Your task to perform on an android device: change keyboard looks Image 0: 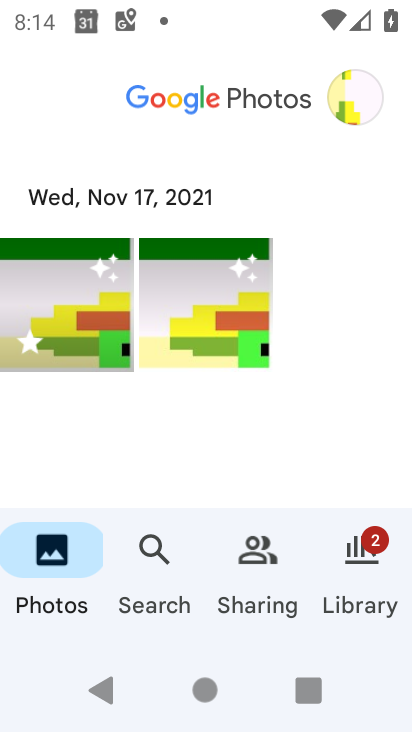
Step 0: press home button
Your task to perform on an android device: change keyboard looks Image 1: 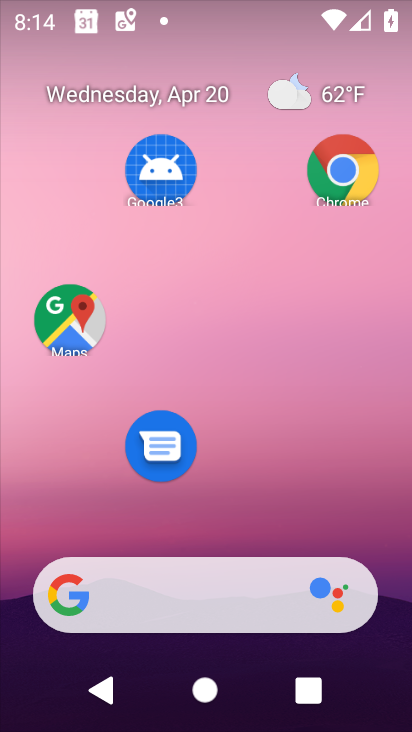
Step 1: drag from (241, 533) to (241, 22)
Your task to perform on an android device: change keyboard looks Image 2: 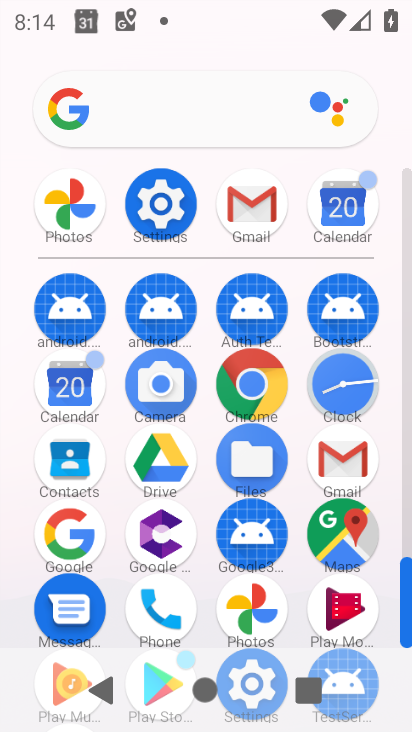
Step 2: click (160, 195)
Your task to perform on an android device: change keyboard looks Image 3: 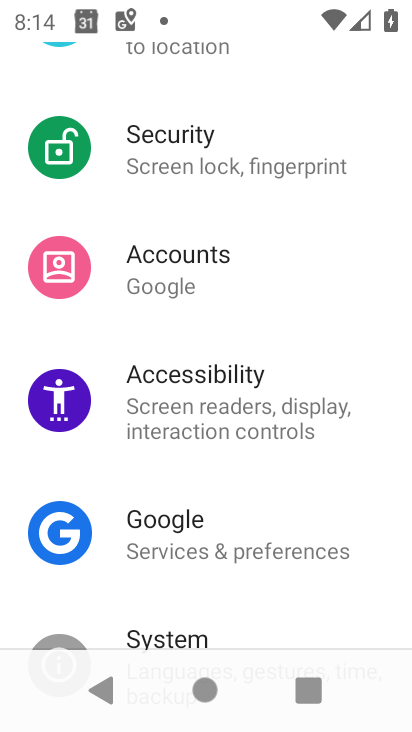
Step 3: drag from (211, 516) to (204, 352)
Your task to perform on an android device: change keyboard looks Image 4: 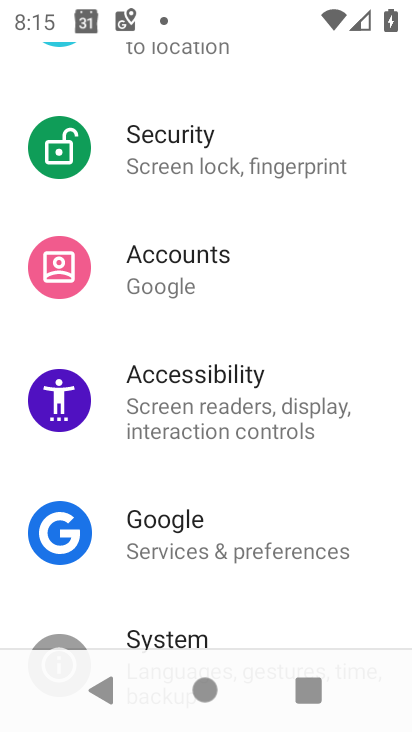
Step 4: drag from (227, 604) to (238, 390)
Your task to perform on an android device: change keyboard looks Image 5: 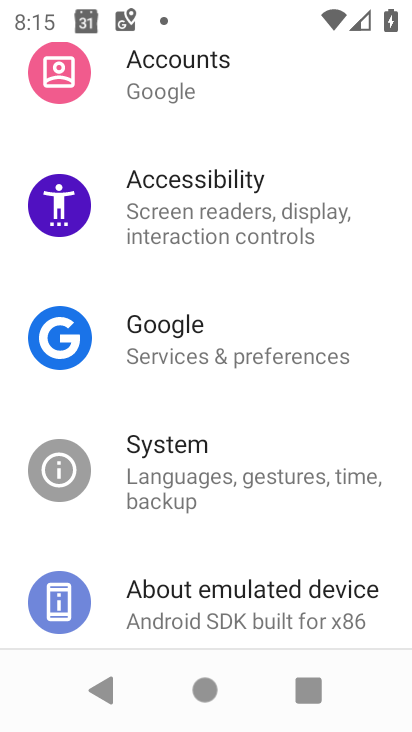
Step 5: click (159, 438)
Your task to perform on an android device: change keyboard looks Image 6: 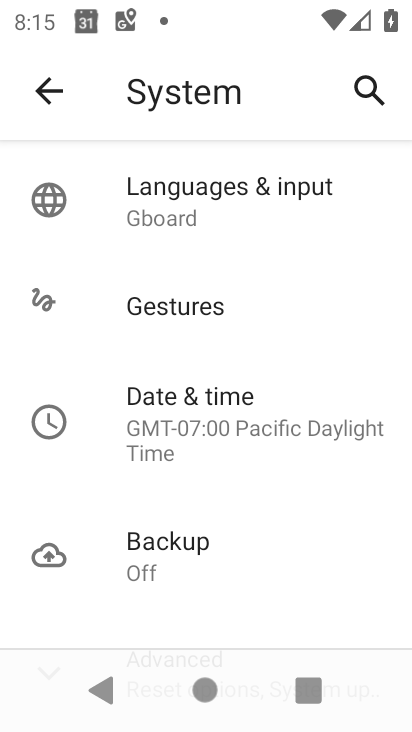
Step 6: click (169, 194)
Your task to perform on an android device: change keyboard looks Image 7: 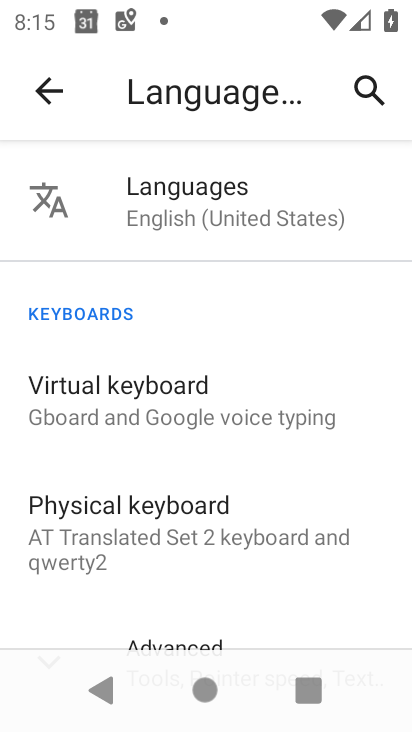
Step 7: click (146, 389)
Your task to perform on an android device: change keyboard looks Image 8: 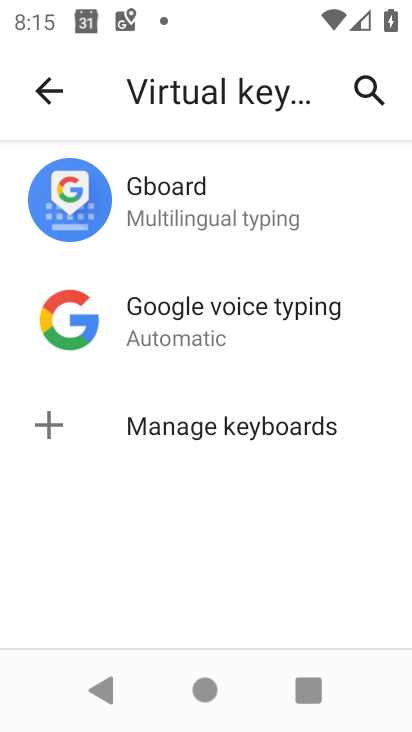
Step 8: click (154, 177)
Your task to perform on an android device: change keyboard looks Image 9: 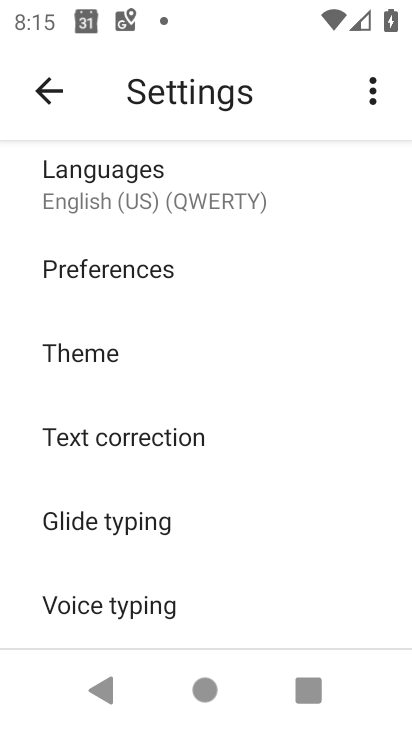
Step 9: click (93, 356)
Your task to perform on an android device: change keyboard looks Image 10: 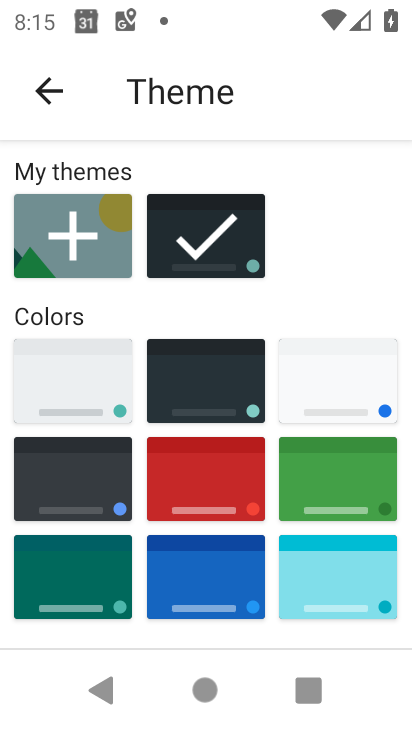
Step 10: click (209, 479)
Your task to perform on an android device: change keyboard looks Image 11: 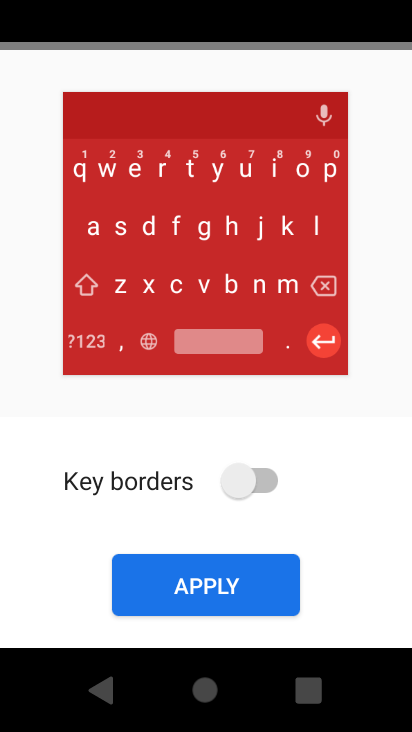
Step 11: click (199, 593)
Your task to perform on an android device: change keyboard looks Image 12: 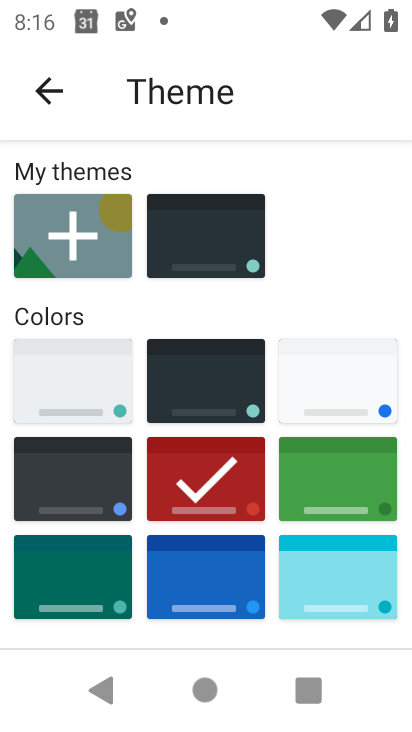
Step 12: task complete